Your task to perform on an android device: Go to calendar. Show me events next week Image 0: 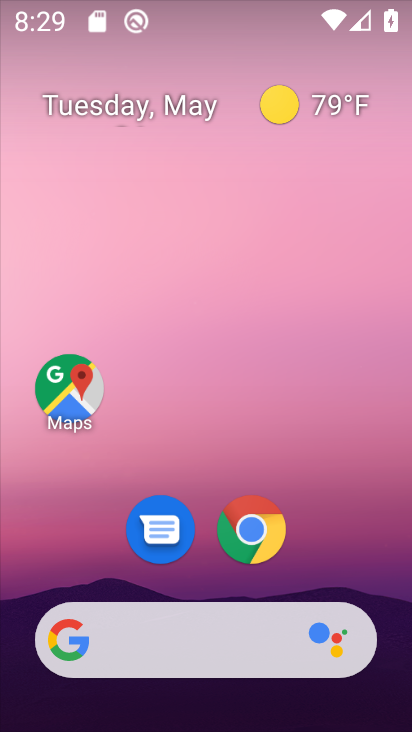
Step 0: drag from (318, 536) to (336, 117)
Your task to perform on an android device: Go to calendar. Show me events next week Image 1: 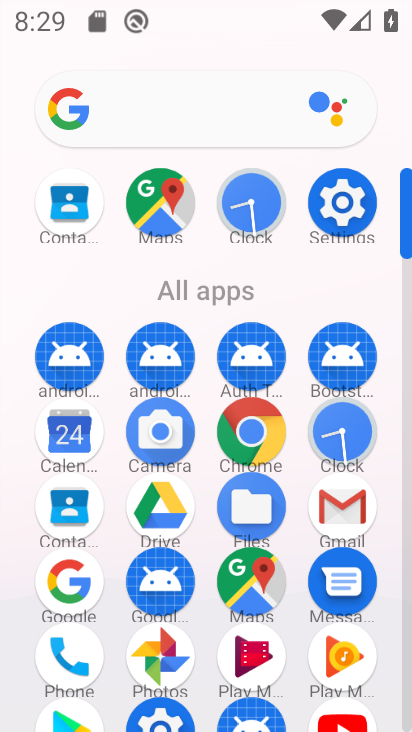
Step 1: click (73, 437)
Your task to perform on an android device: Go to calendar. Show me events next week Image 2: 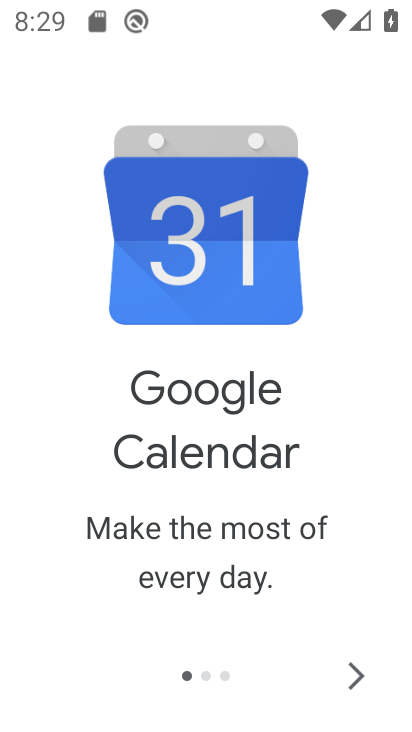
Step 2: click (360, 679)
Your task to perform on an android device: Go to calendar. Show me events next week Image 3: 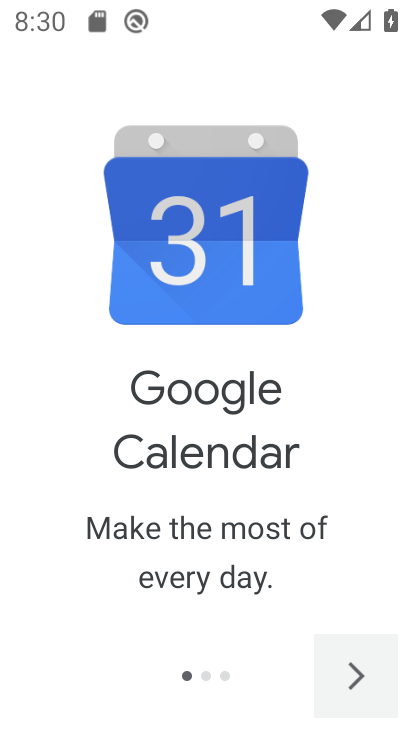
Step 3: click (359, 673)
Your task to perform on an android device: Go to calendar. Show me events next week Image 4: 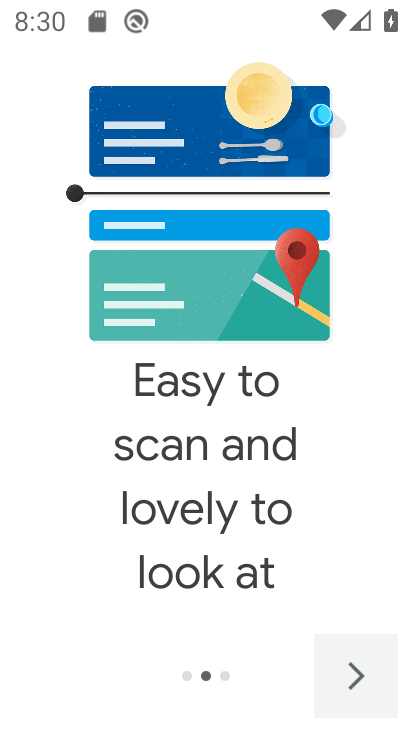
Step 4: click (359, 672)
Your task to perform on an android device: Go to calendar. Show me events next week Image 5: 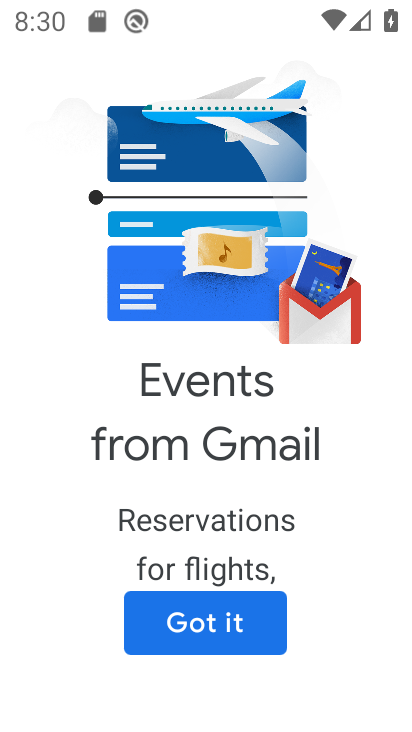
Step 5: click (242, 607)
Your task to perform on an android device: Go to calendar. Show me events next week Image 6: 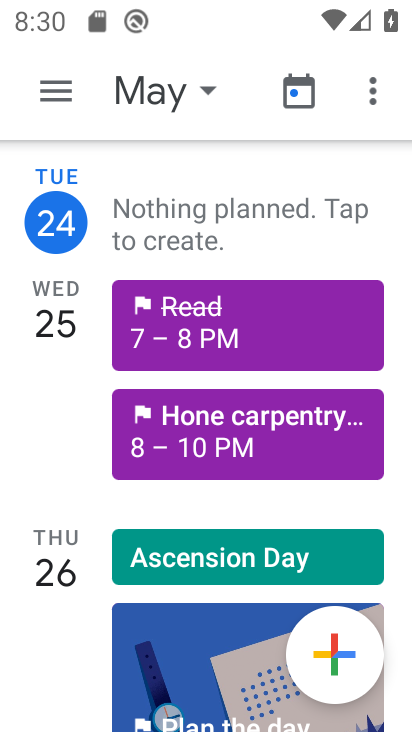
Step 6: click (136, 98)
Your task to perform on an android device: Go to calendar. Show me events next week Image 7: 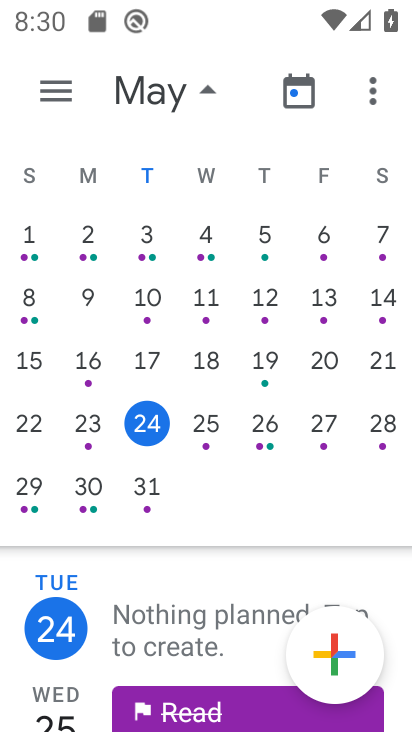
Step 7: click (97, 502)
Your task to perform on an android device: Go to calendar. Show me events next week Image 8: 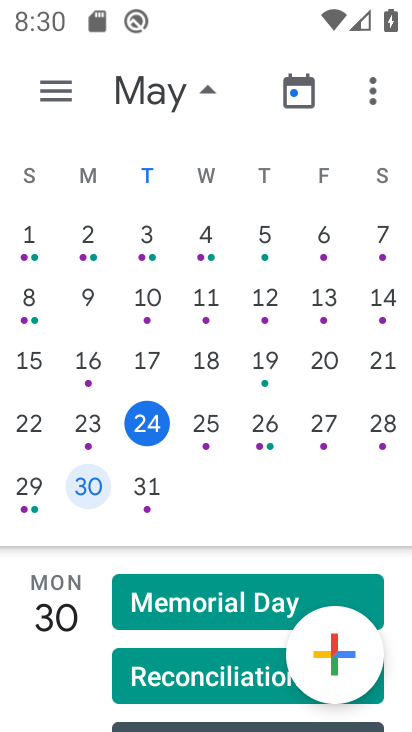
Step 8: click (73, 94)
Your task to perform on an android device: Go to calendar. Show me events next week Image 9: 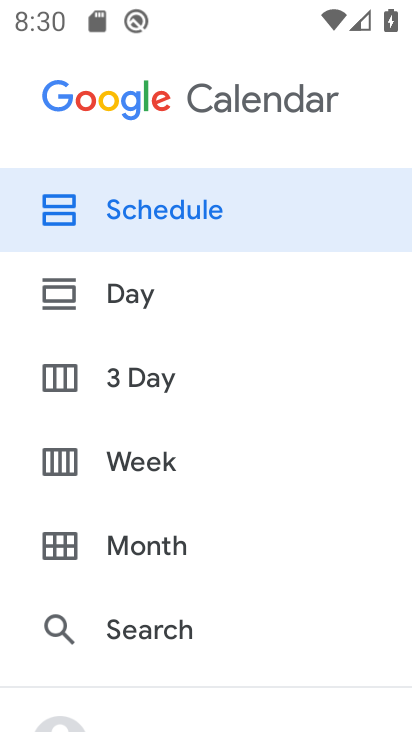
Step 9: click (132, 463)
Your task to perform on an android device: Go to calendar. Show me events next week Image 10: 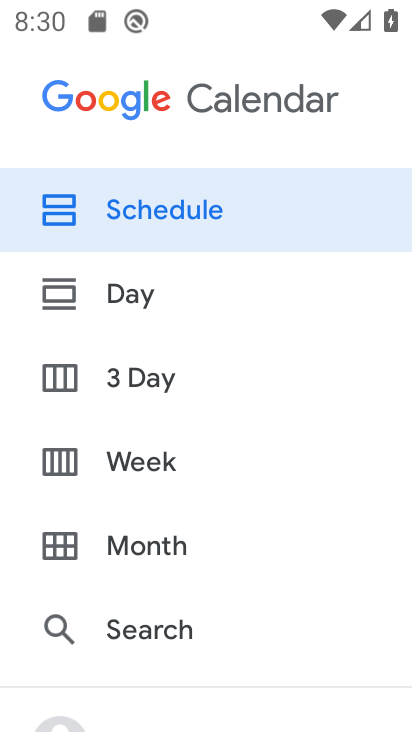
Step 10: click (132, 459)
Your task to perform on an android device: Go to calendar. Show me events next week Image 11: 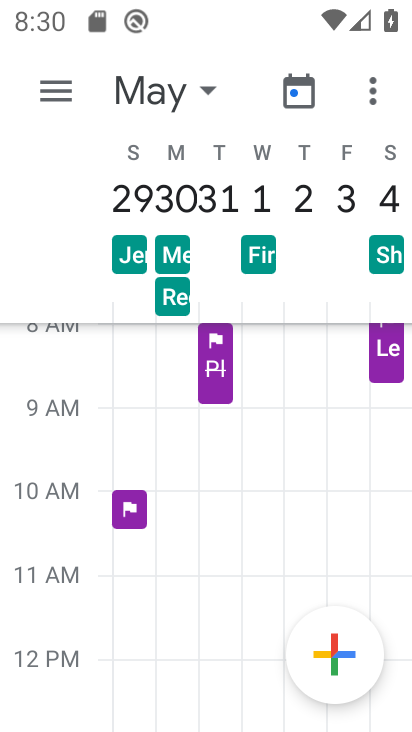
Step 11: task complete